Your task to perform on an android device: Search for seafood restaurants on Google Maps Image 0: 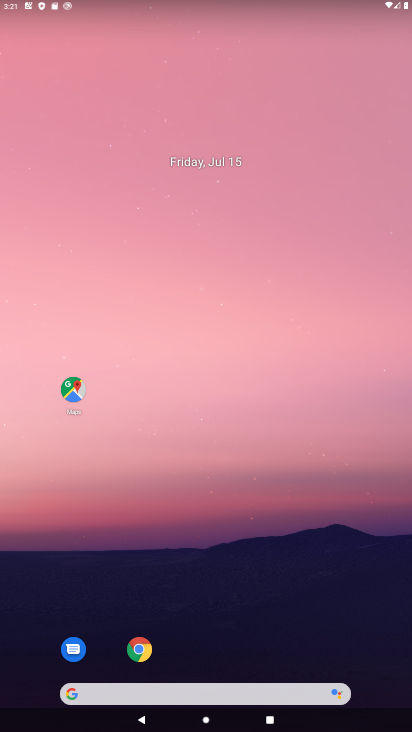
Step 0: drag from (270, 618) to (283, 146)
Your task to perform on an android device: Search for seafood restaurants on Google Maps Image 1: 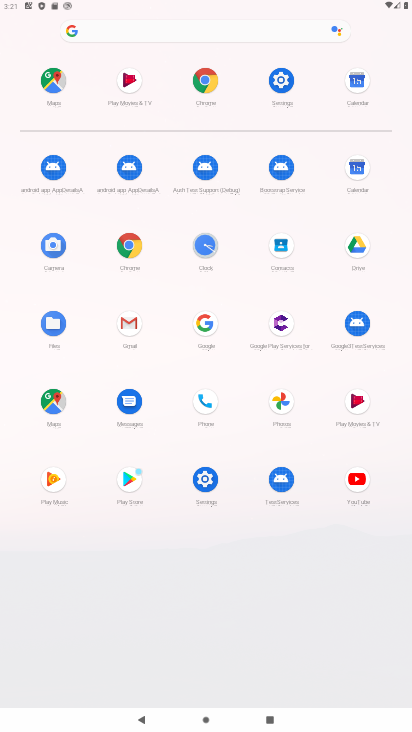
Step 1: click (48, 398)
Your task to perform on an android device: Search for seafood restaurants on Google Maps Image 2: 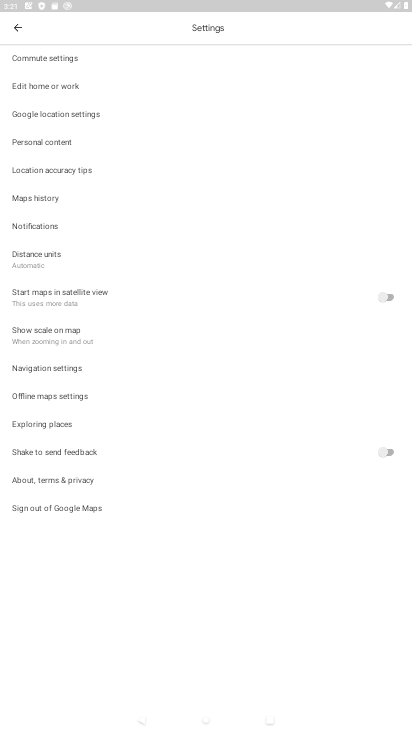
Step 2: click (21, 28)
Your task to perform on an android device: Search for seafood restaurants on Google Maps Image 3: 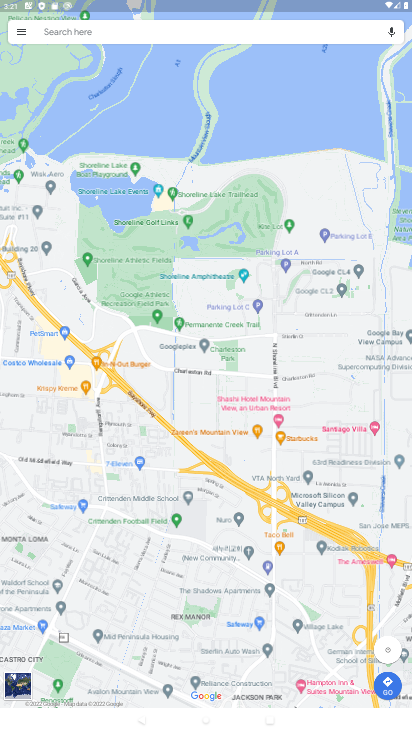
Step 3: click (90, 37)
Your task to perform on an android device: Search for seafood restaurants on Google Maps Image 4: 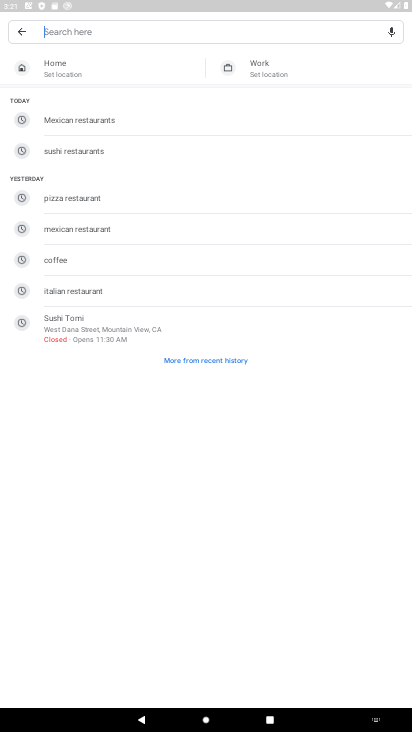
Step 4: type "seafood restaurants"
Your task to perform on an android device: Search for seafood restaurants on Google Maps Image 5: 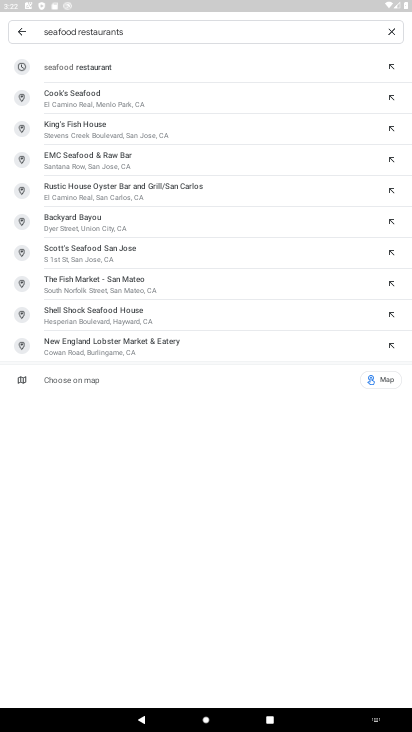
Step 5: press enter
Your task to perform on an android device: Search for seafood restaurants on Google Maps Image 6: 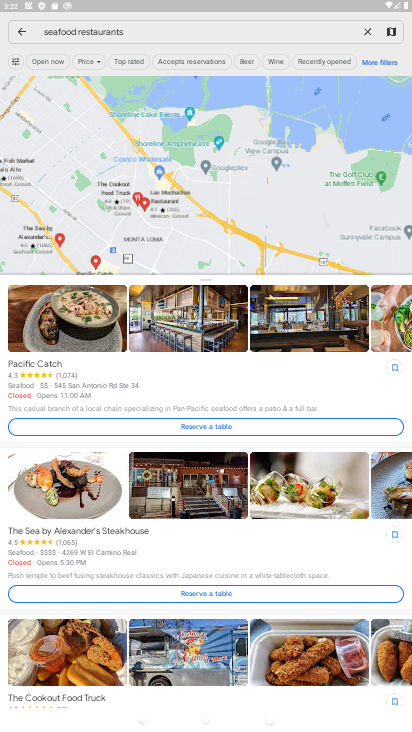
Step 6: task complete